Your task to perform on an android device: Go to CNN.com Image 0: 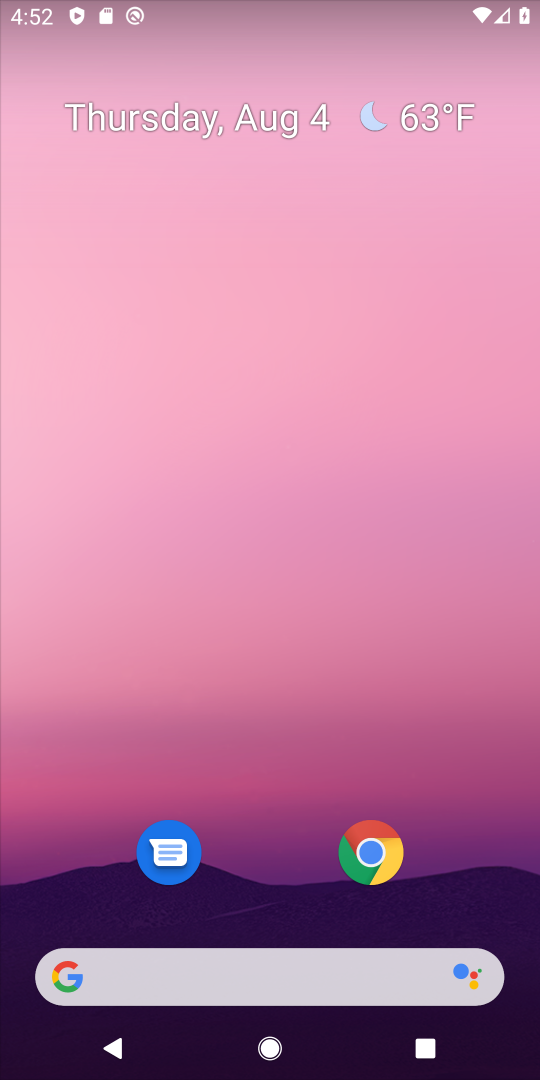
Step 0: click (362, 874)
Your task to perform on an android device: Go to CNN.com Image 1: 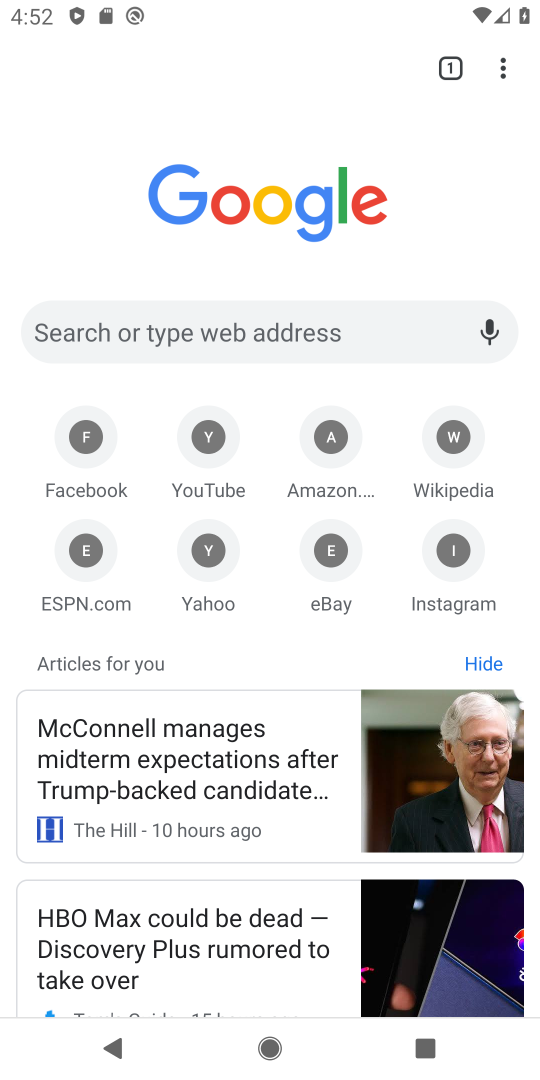
Step 1: click (256, 330)
Your task to perform on an android device: Go to CNN.com Image 2: 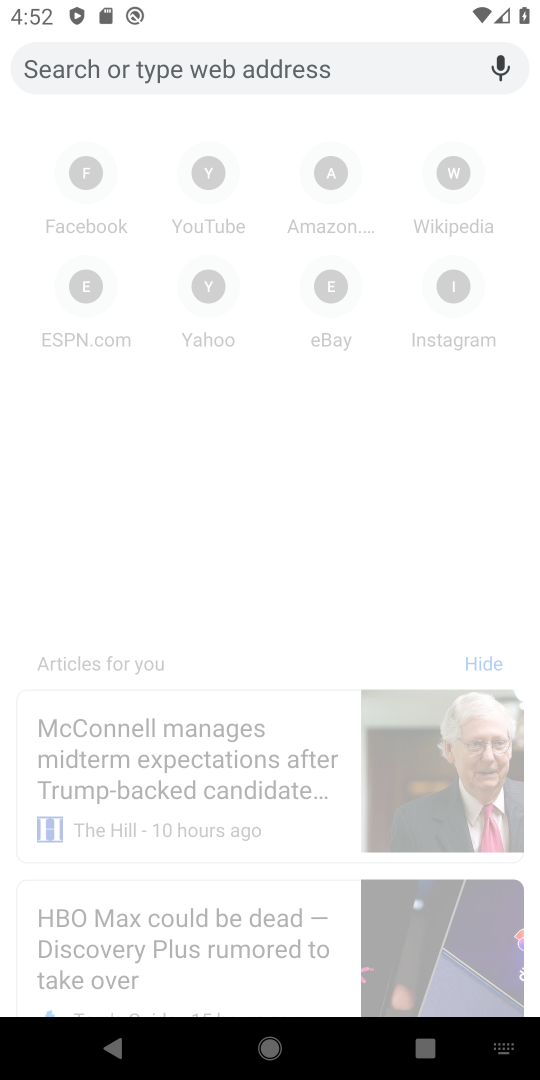
Step 2: type "CNN.com"
Your task to perform on an android device: Go to CNN.com Image 3: 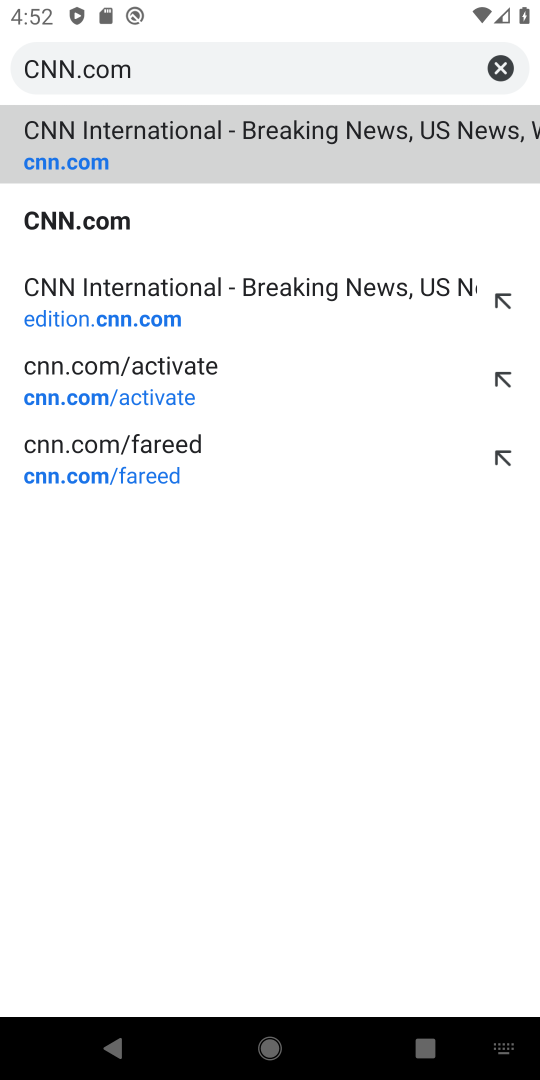
Step 3: click (77, 135)
Your task to perform on an android device: Go to CNN.com Image 4: 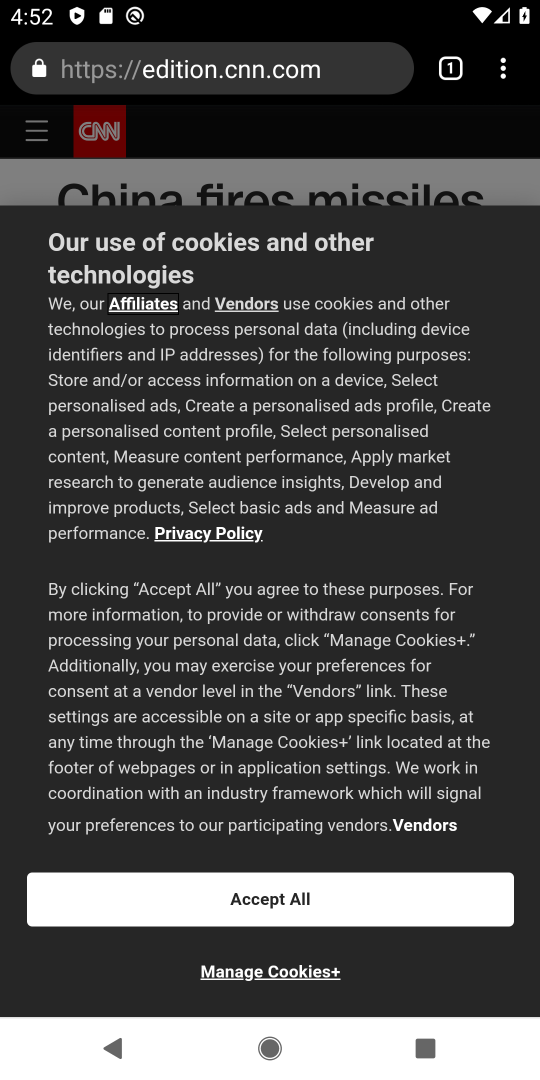
Step 4: task complete